Your task to perform on an android device: Do I have any events tomorrow? Image 0: 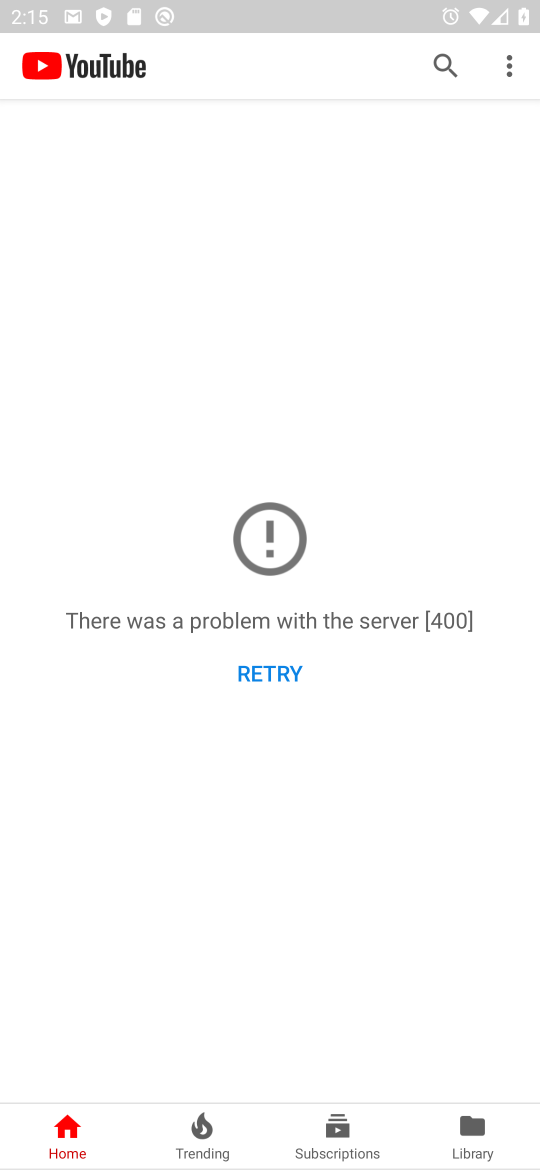
Step 0: press home button
Your task to perform on an android device: Do I have any events tomorrow? Image 1: 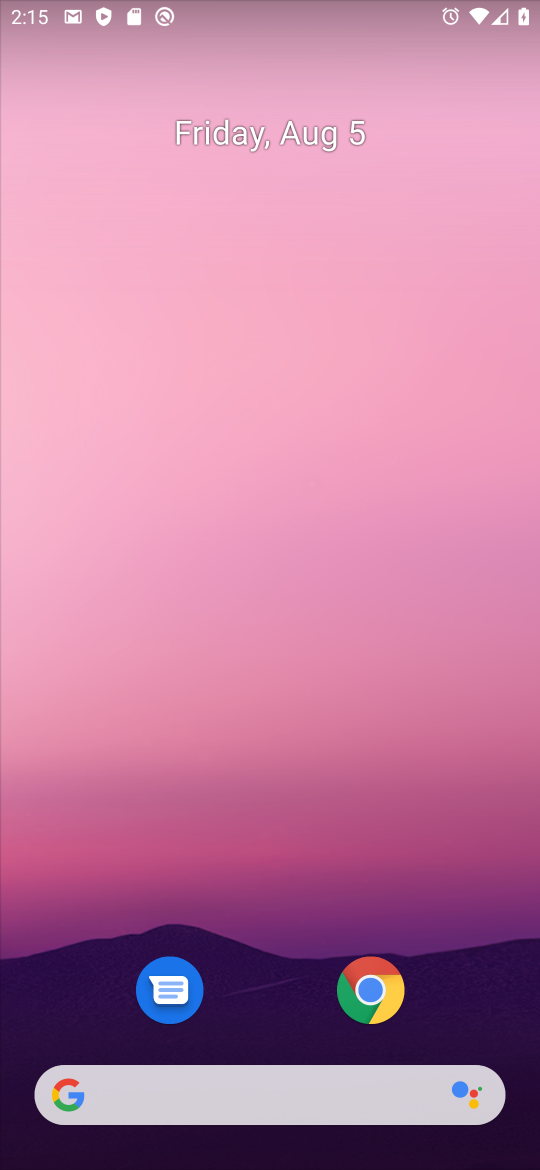
Step 1: drag from (211, 1102) to (168, 495)
Your task to perform on an android device: Do I have any events tomorrow? Image 2: 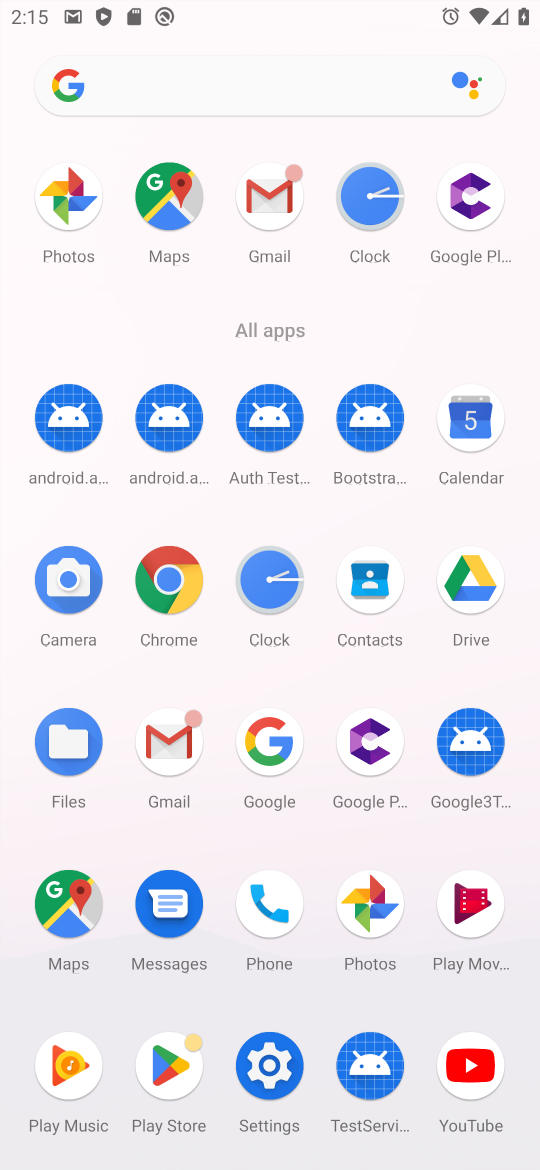
Step 2: click (472, 418)
Your task to perform on an android device: Do I have any events tomorrow? Image 3: 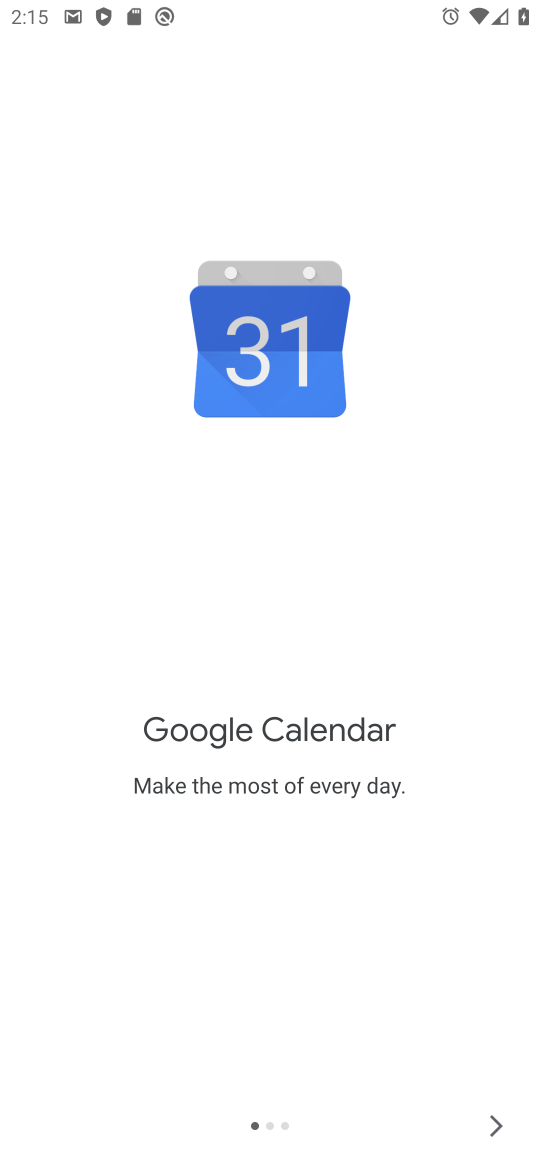
Step 3: click (496, 1130)
Your task to perform on an android device: Do I have any events tomorrow? Image 4: 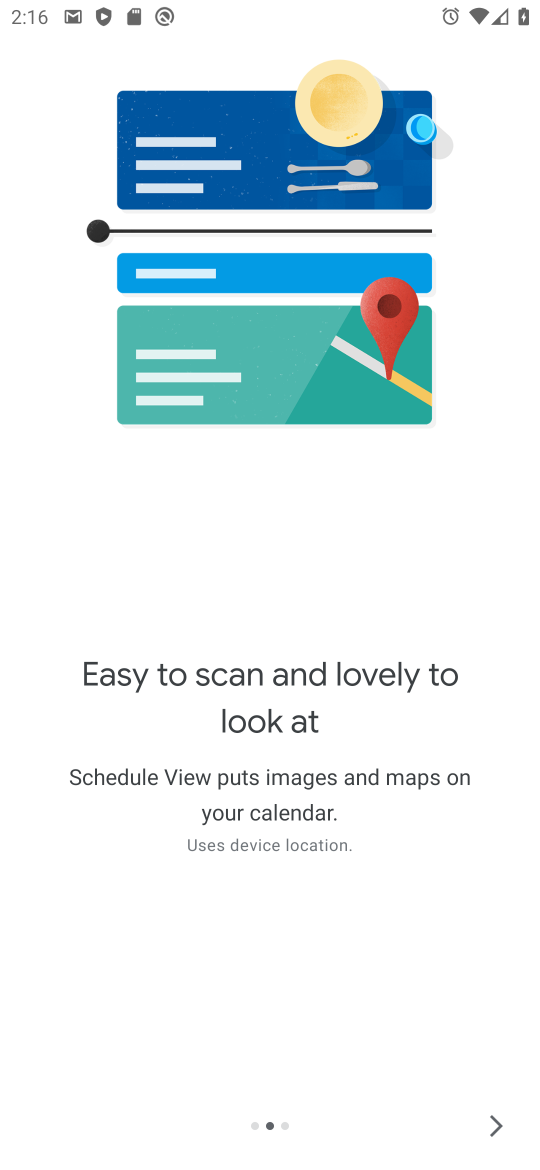
Step 4: click (495, 1132)
Your task to perform on an android device: Do I have any events tomorrow? Image 5: 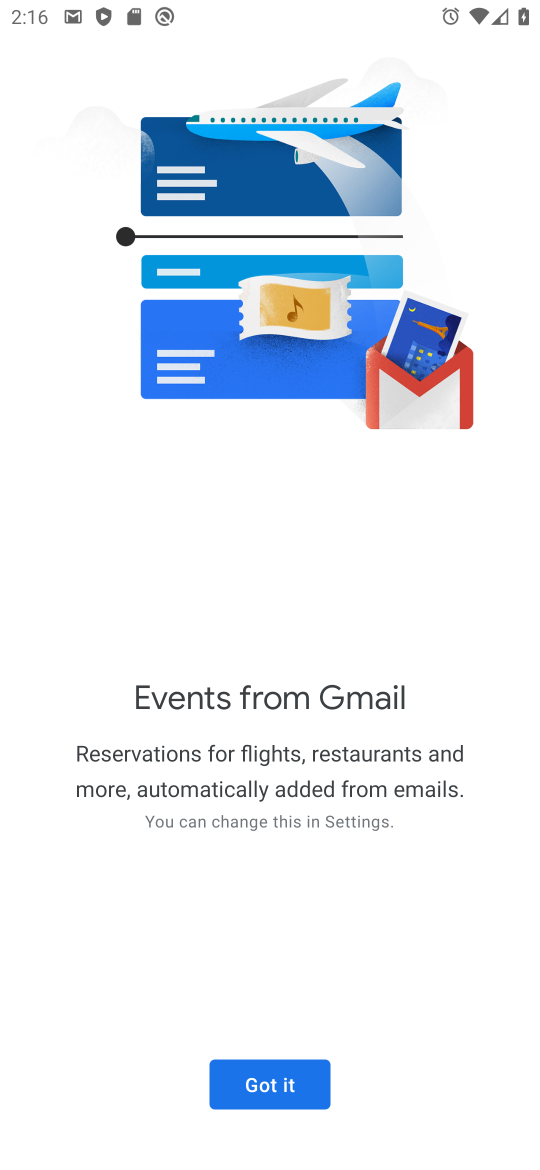
Step 5: click (206, 1092)
Your task to perform on an android device: Do I have any events tomorrow? Image 6: 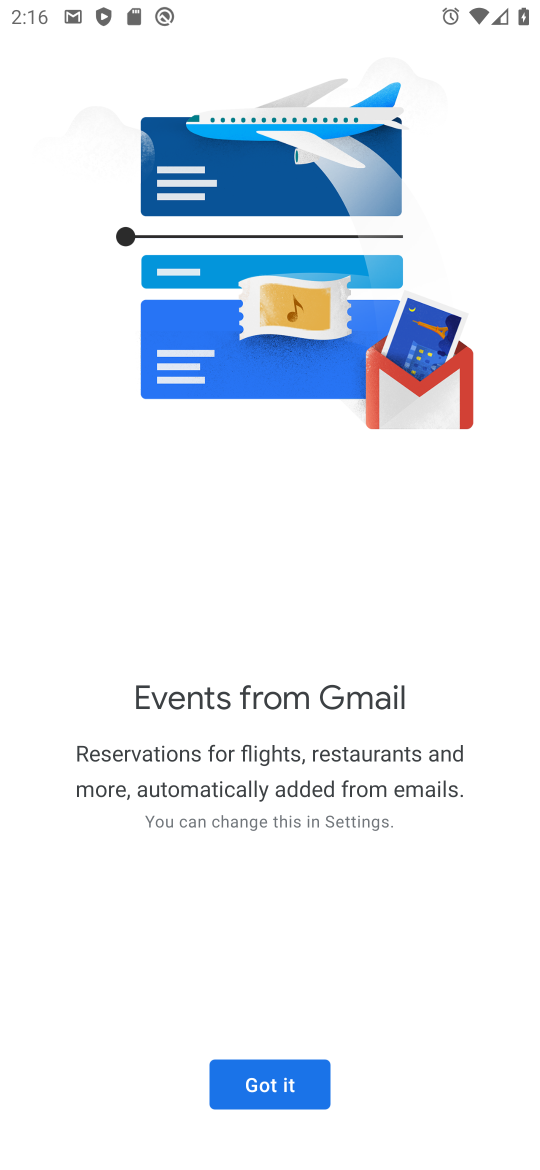
Step 6: click (231, 1099)
Your task to perform on an android device: Do I have any events tomorrow? Image 7: 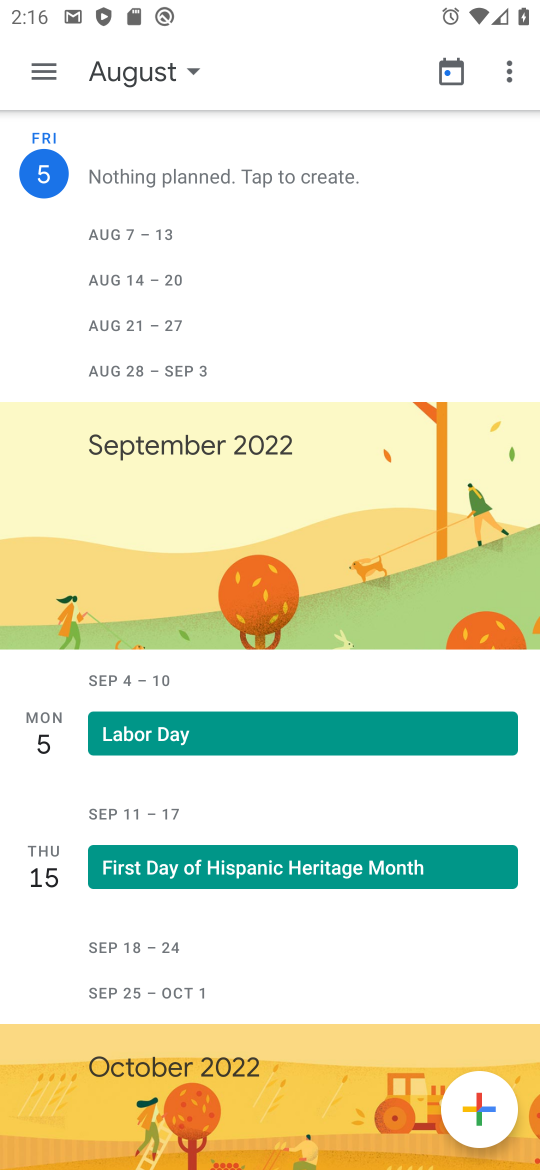
Step 7: click (26, 76)
Your task to perform on an android device: Do I have any events tomorrow? Image 8: 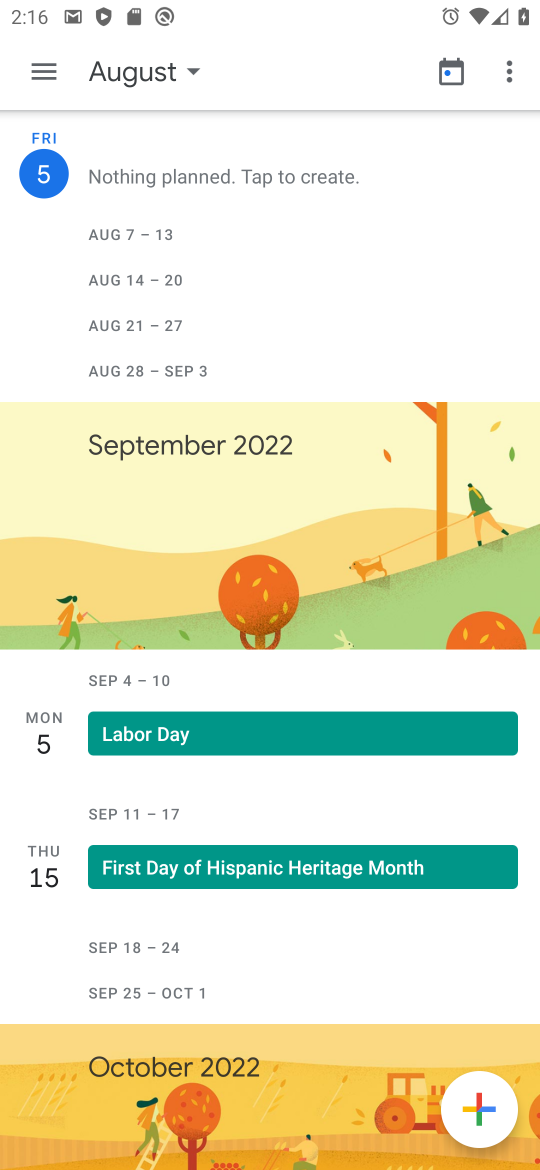
Step 8: click (41, 82)
Your task to perform on an android device: Do I have any events tomorrow? Image 9: 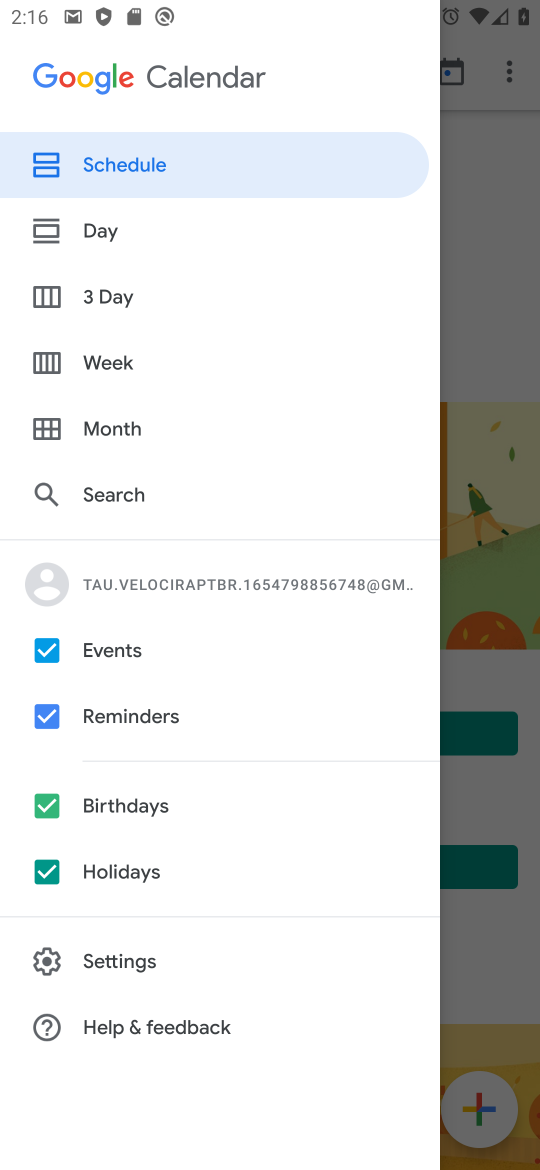
Step 9: click (129, 167)
Your task to perform on an android device: Do I have any events tomorrow? Image 10: 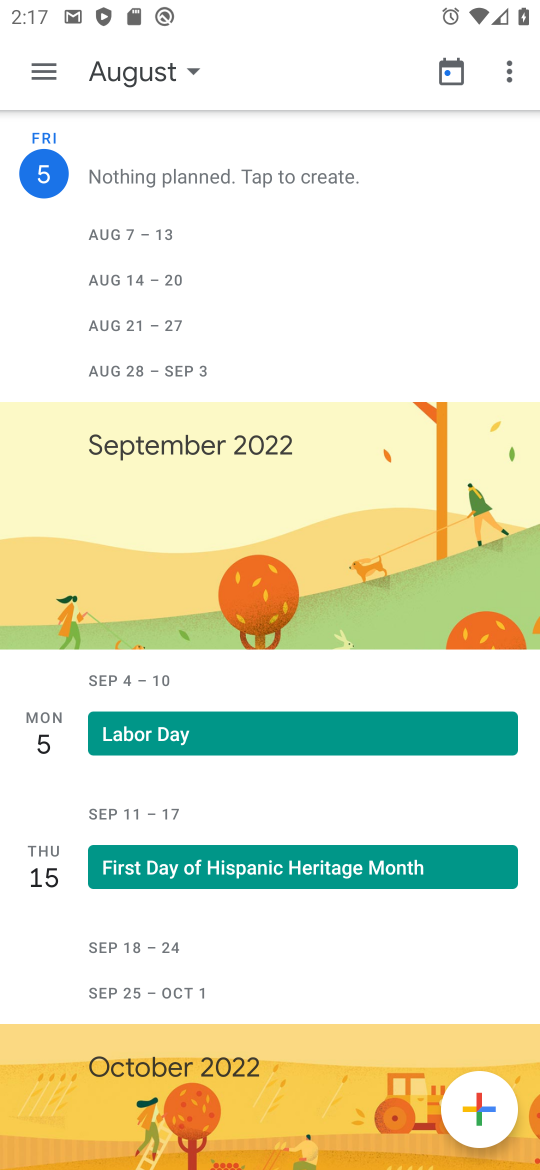
Step 10: task complete